Your task to perform on an android device: delete the emails in spam in the gmail app Image 0: 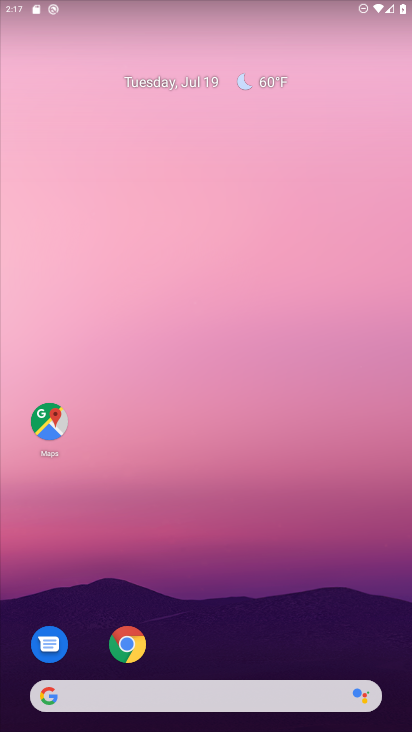
Step 0: drag from (381, 555) to (349, 73)
Your task to perform on an android device: delete the emails in spam in the gmail app Image 1: 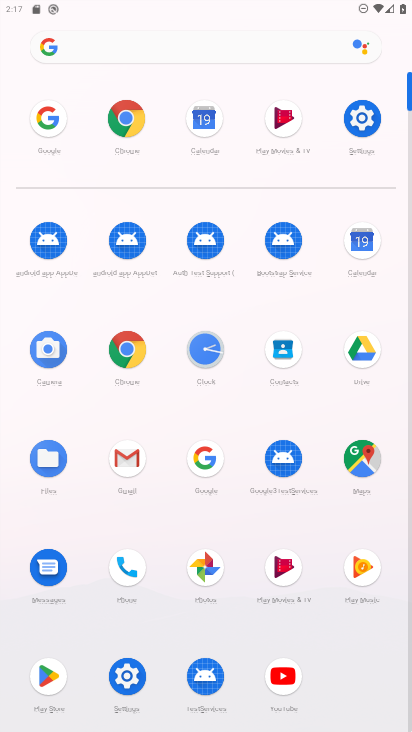
Step 1: click (132, 460)
Your task to perform on an android device: delete the emails in spam in the gmail app Image 2: 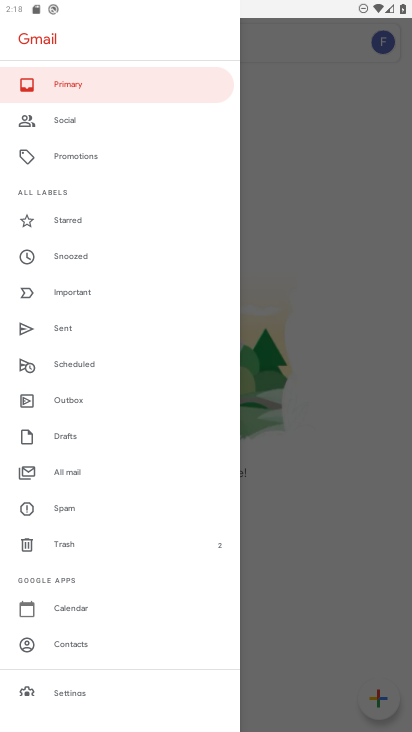
Step 2: click (322, 334)
Your task to perform on an android device: delete the emails in spam in the gmail app Image 3: 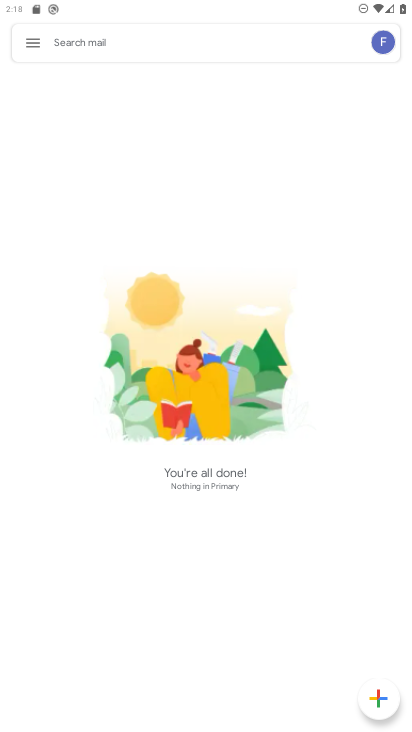
Step 3: task complete